Your task to perform on an android device: change the clock display to analog Image 0: 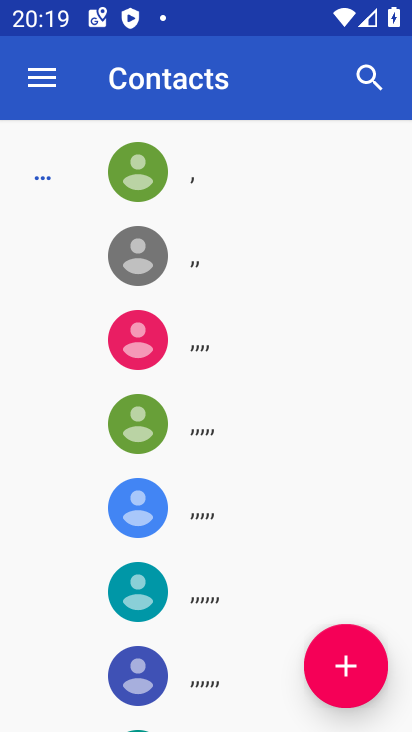
Step 0: press home button
Your task to perform on an android device: change the clock display to analog Image 1: 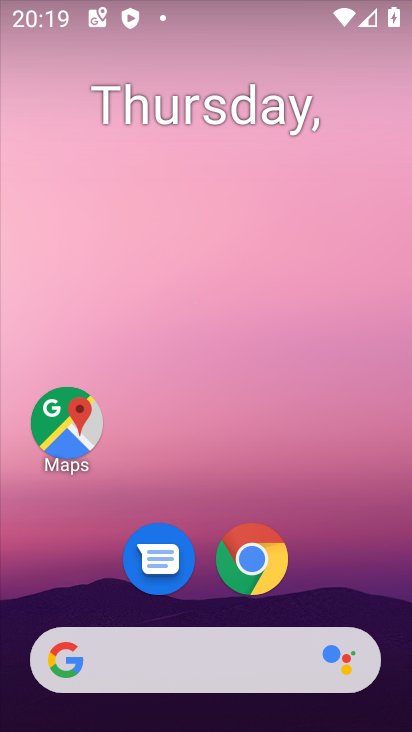
Step 1: drag from (182, 640) to (153, 152)
Your task to perform on an android device: change the clock display to analog Image 2: 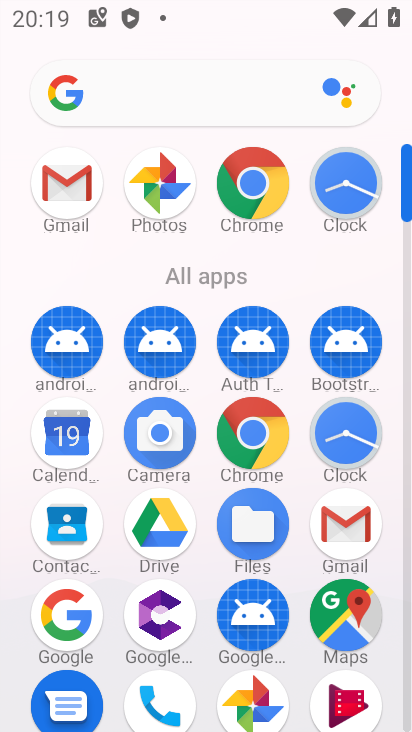
Step 2: drag from (210, 570) to (219, 4)
Your task to perform on an android device: change the clock display to analog Image 3: 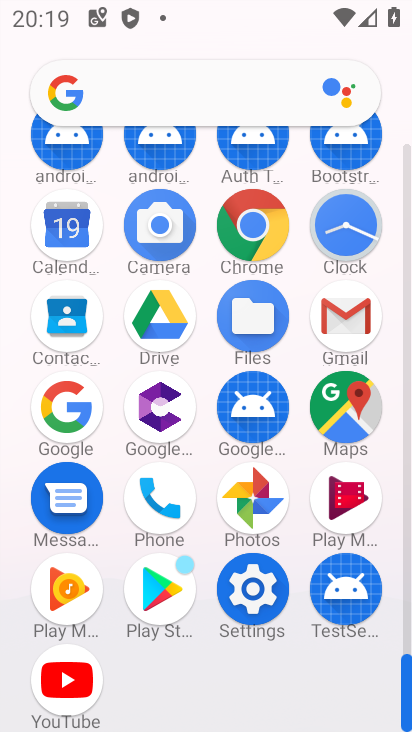
Step 3: click (256, 588)
Your task to perform on an android device: change the clock display to analog Image 4: 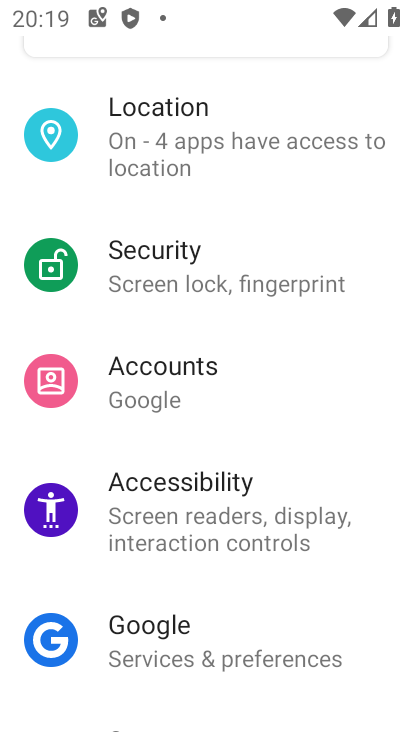
Step 4: press home button
Your task to perform on an android device: change the clock display to analog Image 5: 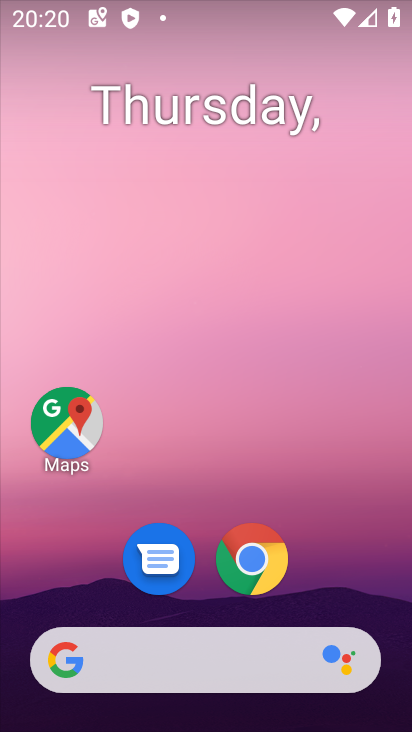
Step 5: drag from (210, 680) to (184, 297)
Your task to perform on an android device: change the clock display to analog Image 6: 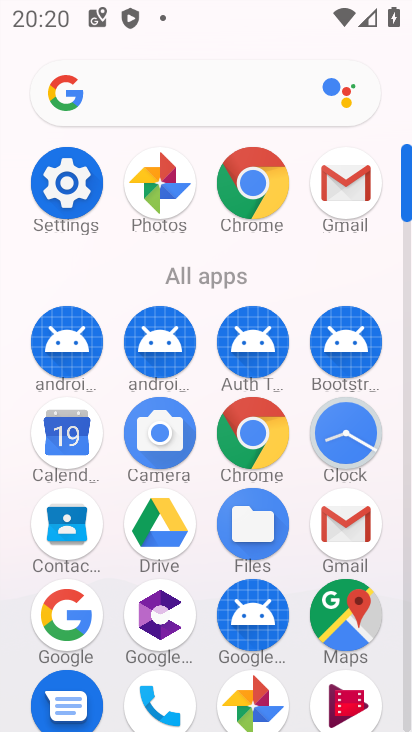
Step 6: click (329, 449)
Your task to perform on an android device: change the clock display to analog Image 7: 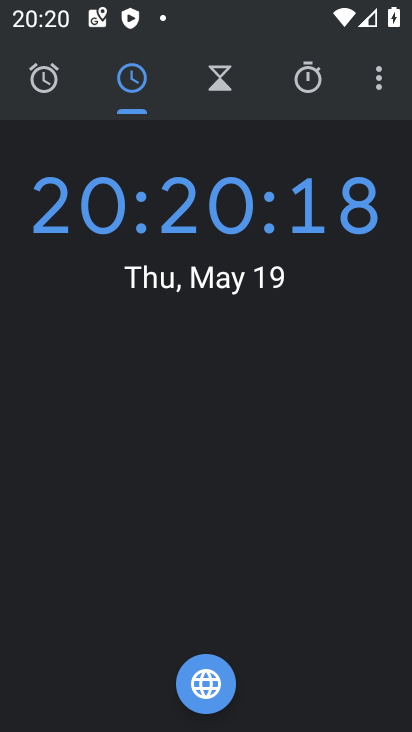
Step 7: click (374, 77)
Your task to perform on an android device: change the clock display to analog Image 8: 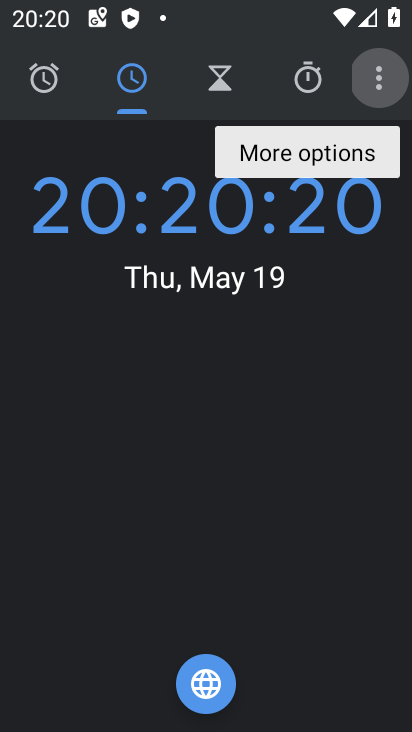
Step 8: click (374, 74)
Your task to perform on an android device: change the clock display to analog Image 9: 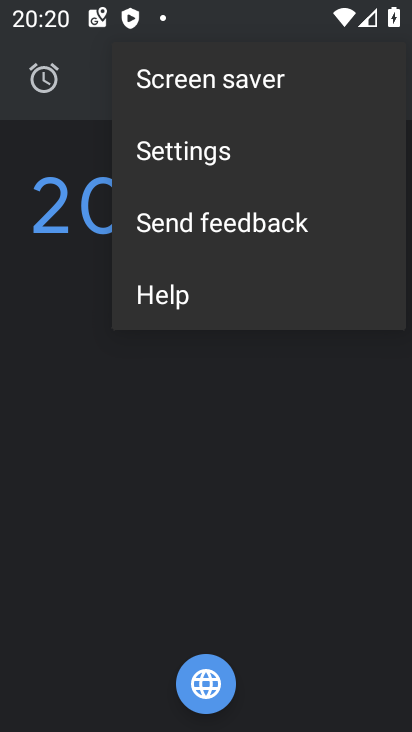
Step 9: click (215, 149)
Your task to perform on an android device: change the clock display to analog Image 10: 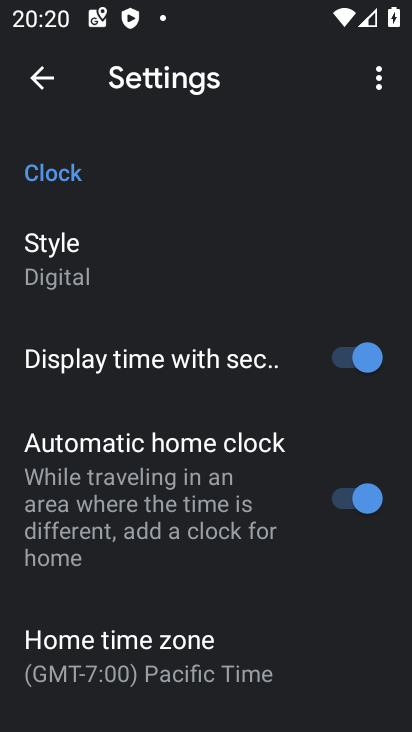
Step 10: click (127, 272)
Your task to perform on an android device: change the clock display to analog Image 11: 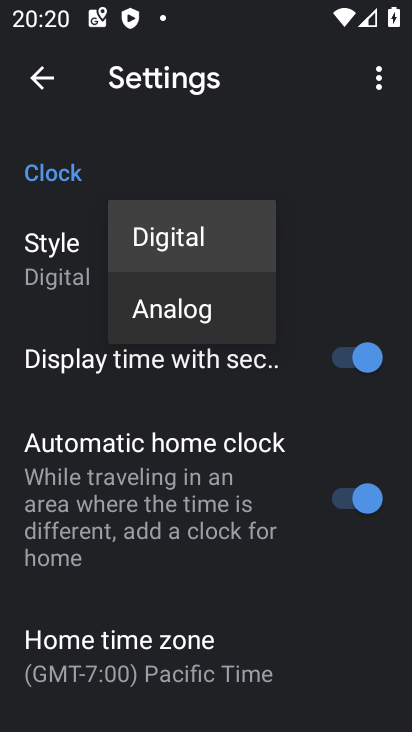
Step 11: click (155, 307)
Your task to perform on an android device: change the clock display to analog Image 12: 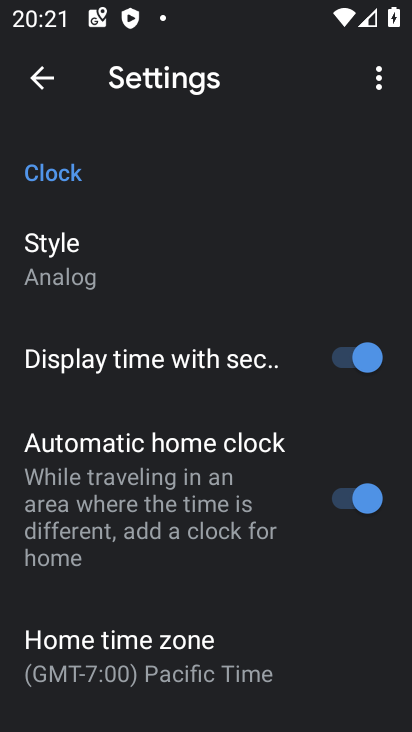
Step 12: task complete